Your task to perform on an android device: Do I have any events tomorrow? Image 0: 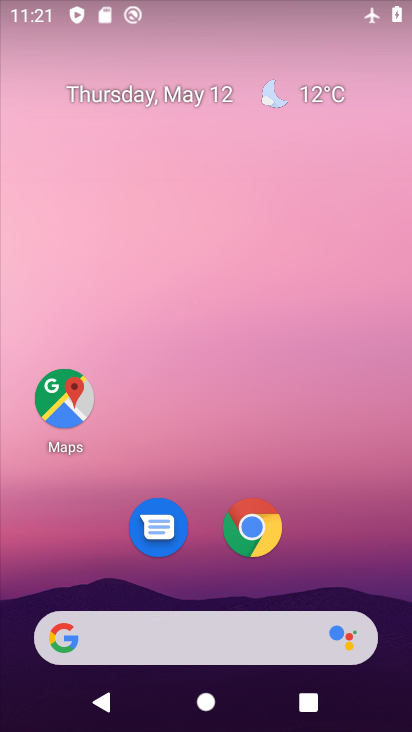
Step 0: drag from (70, 565) to (361, 144)
Your task to perform on an android device: Do I have any events tomorrow? Image 1: 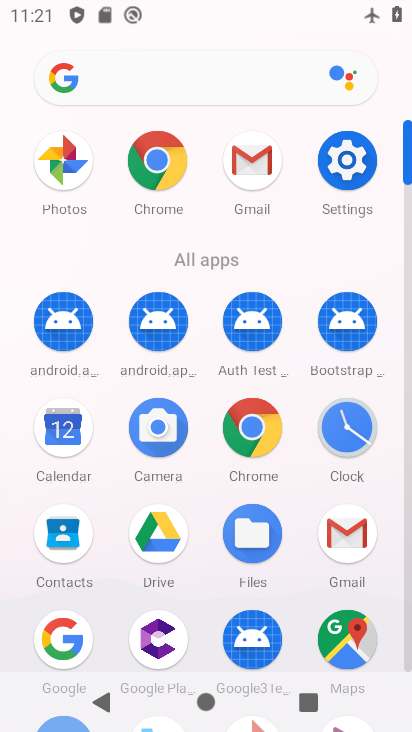
Step 1: click (70, 449)
Your task to perform on an android device: Do I have any events tomorrow? Image 2: 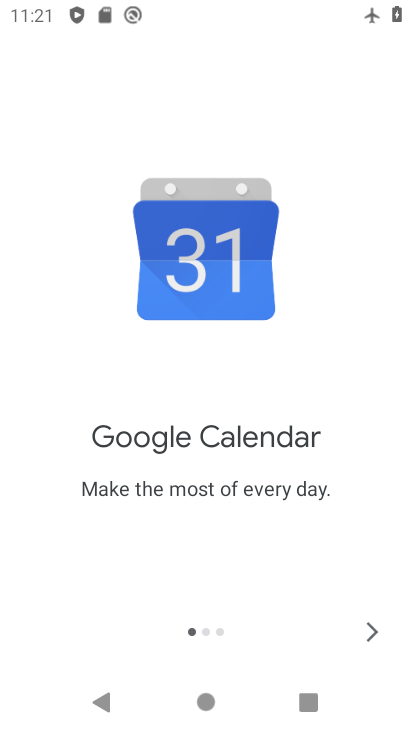
Step 2: click (373, 627)
Your task to perform on an android device: Do I have any events tomorrow? Image 3: 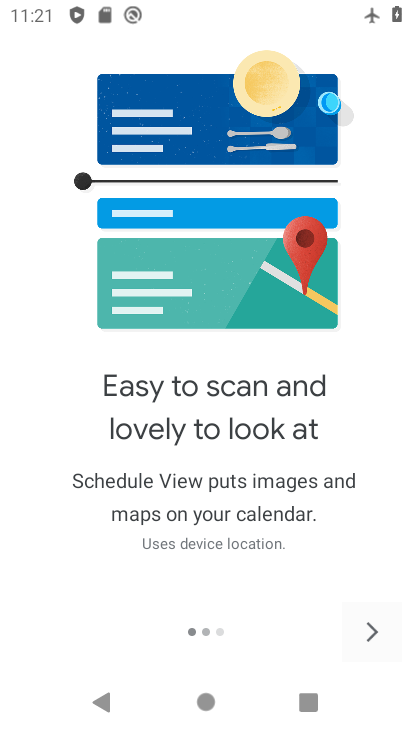
Step 3: click (373, 627)
Your task to perform on an android device: Do I have any events tomorrow? Image 4: 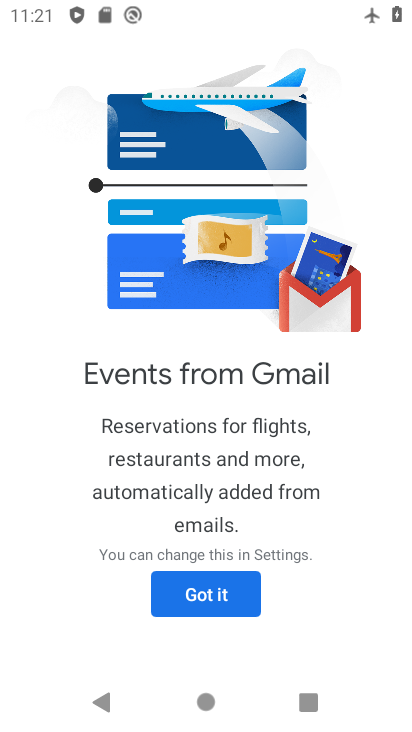
Step 4: click (373, 627)
Your task to perform on an android device: Do I have any events tomorrow? Image 5: 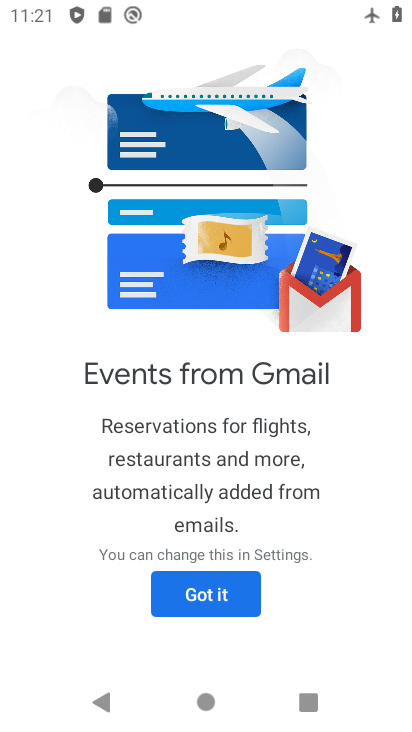
Step 5: click (252, 594)
Your task to perform on an android device: Do I have any events tomorrow? Image 6: 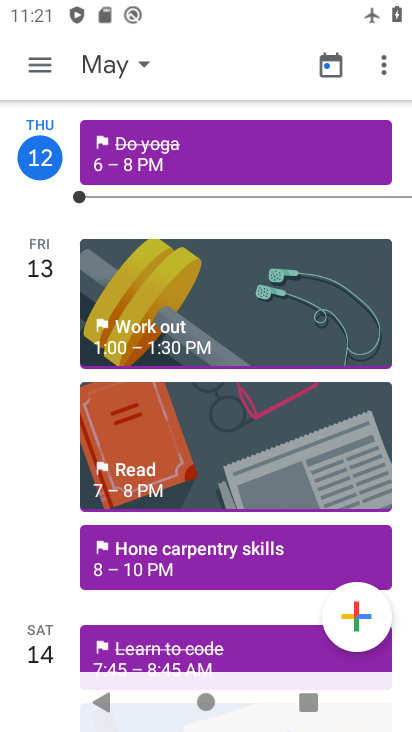
Step 6: click (104, 72)
Your task to perform on an android device: Do I have any events tomorrow? Image 7: 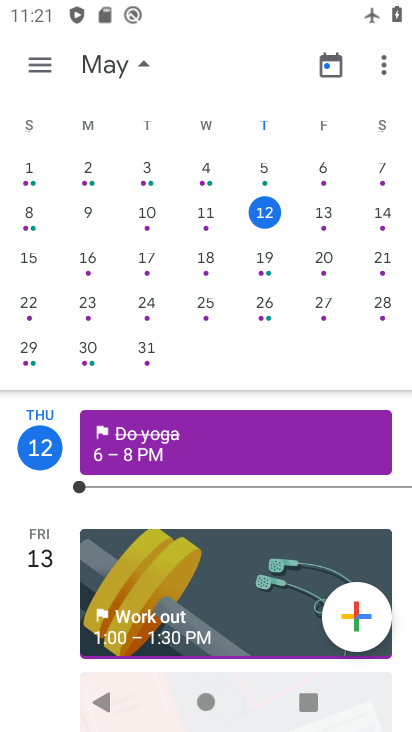
Step 7: click (330, 213)
Your task to perform on an android device: Do I have any events tomorrow? Image 8: 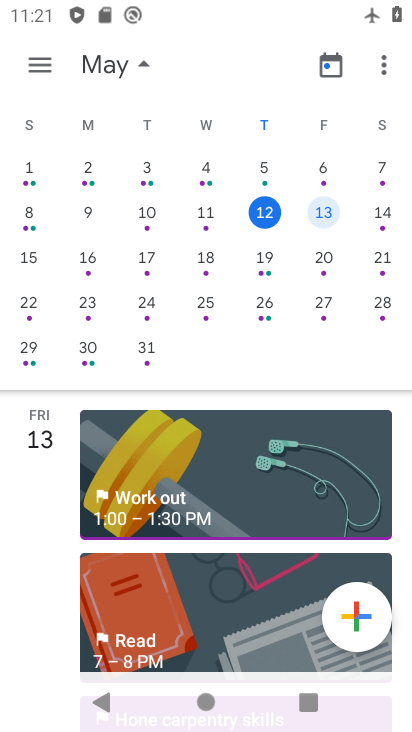
Step 8: task complete